Your task to perform on an android device: Show me recent news Image 0: 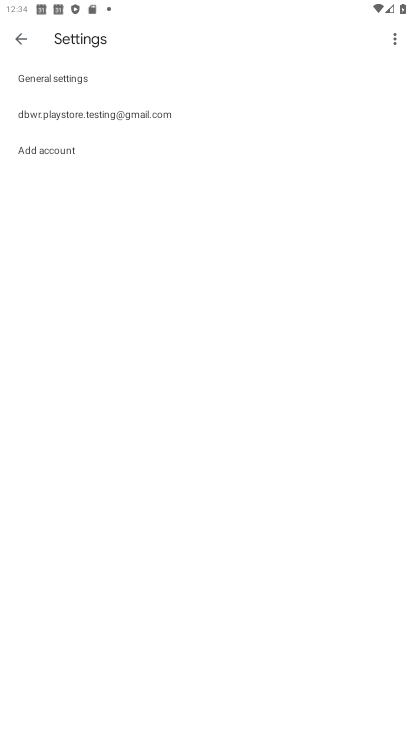
Step 0: press home button
Your task to perform on an android device: Show me recent news Image 1: 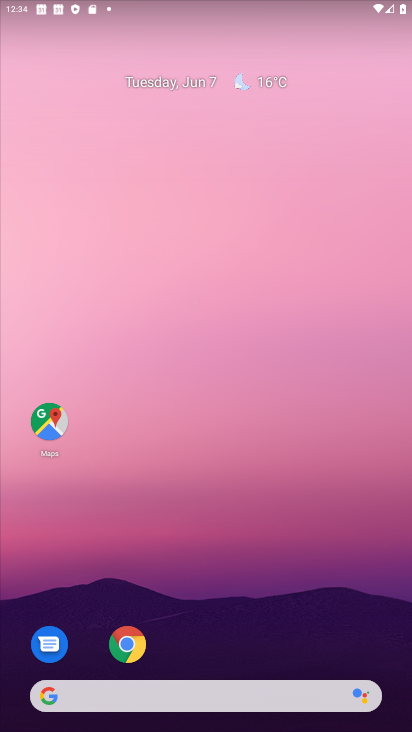
Step 1: click (134, 643)
Your task to perform on an android device: Show me recent news Image 2: 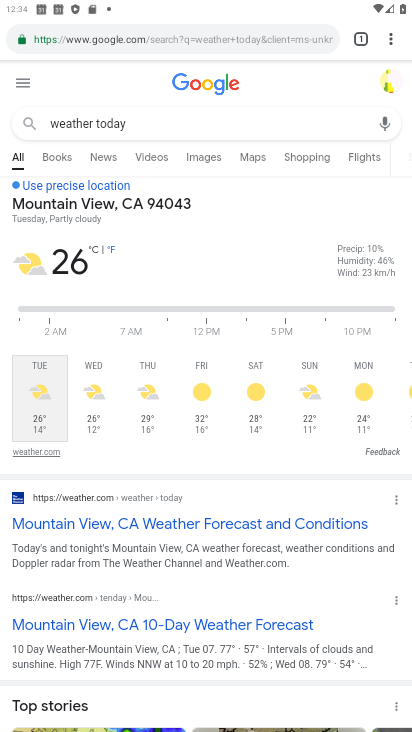
Step 2: click (140, 41)
Your task to perform on an android device: Show me recent news Image 3: 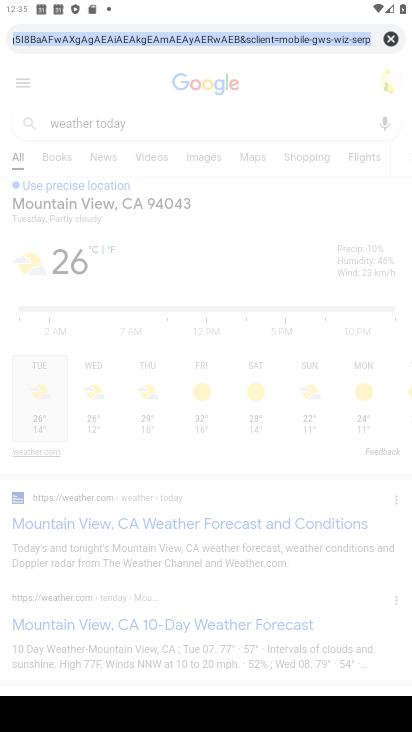
Step 3: type "recent news"
Your task to perform on an android device: Show me recent news Image 4: 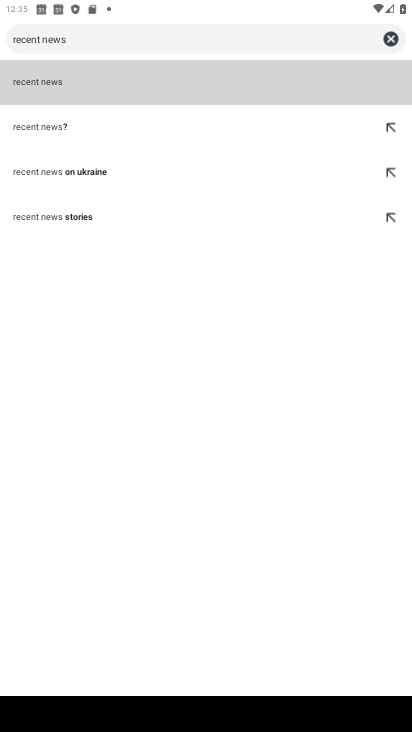
Step 4: click (62, 98)
Your task to perform on an android device: Show me recent news Image 5: 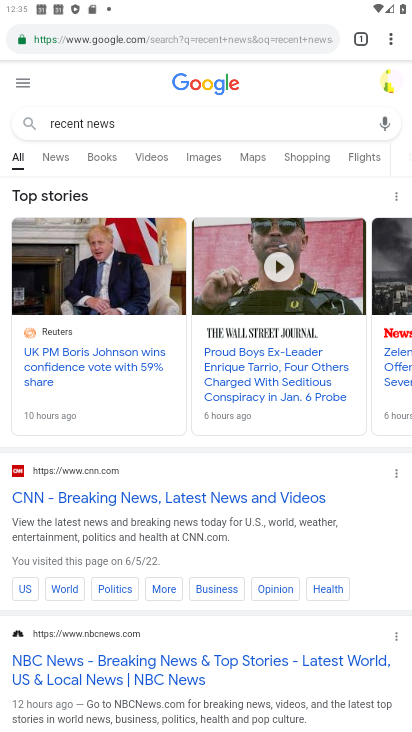
Step 5: task complete